Your task to perform on an android device: Open the Play Movies app and select the watchlist tab. Image 0: 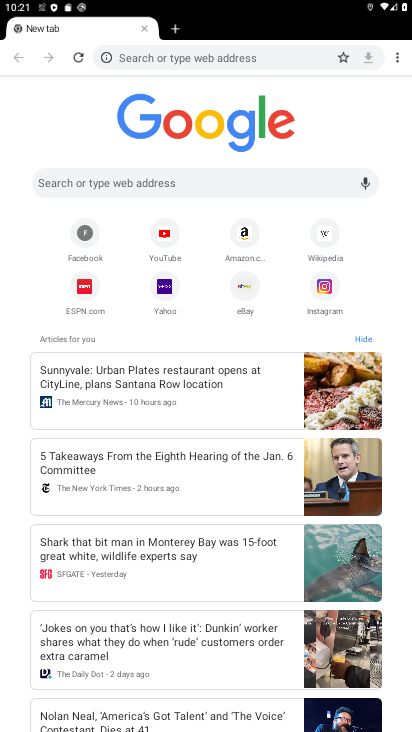
Step 0: press home button
Your task to perform on an android device: Open the Play Movies app and select the watchlist tab. Image 1: 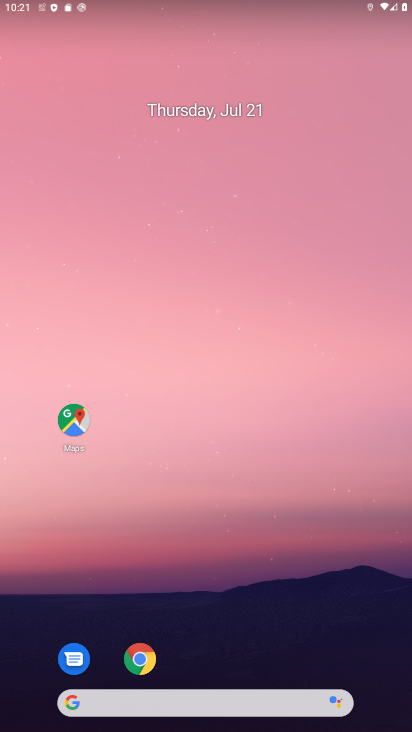
Step 1: drag from (208, 670) to (171, 94)
Your task to perform on an android device: Open the Play Movies app and select the watchlist tab. Image 2: 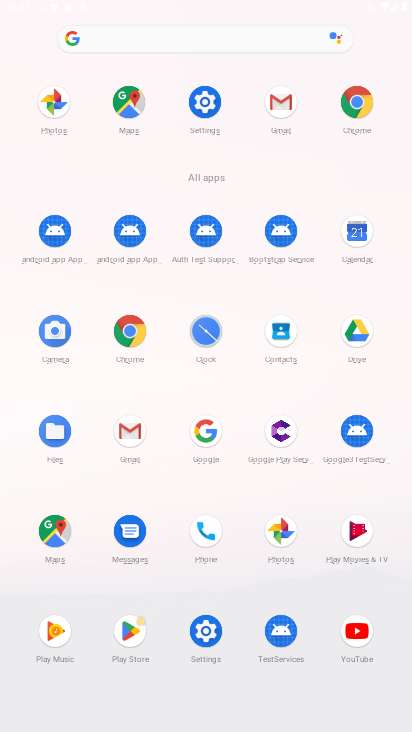
Step 2: click (345, 532)
Your task to perform on an android device: Open the Play Movies app and select the watchlist tab. Image 3: 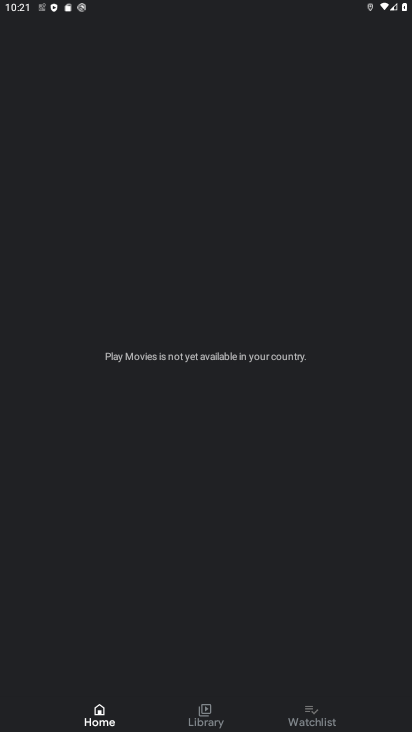
Step 3: click (310, 698)
Your task to perform on an android device: Open the Play Movies app and select the watchlist tab. Image 4: 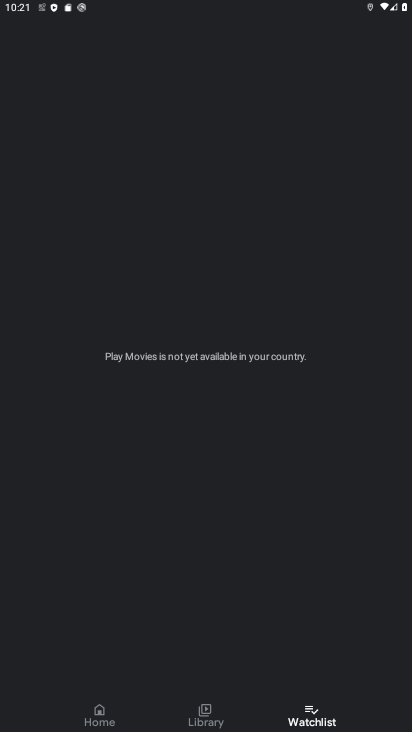
Step 4: task complete